Your task to perform on an android device: set an alarm Image 0: 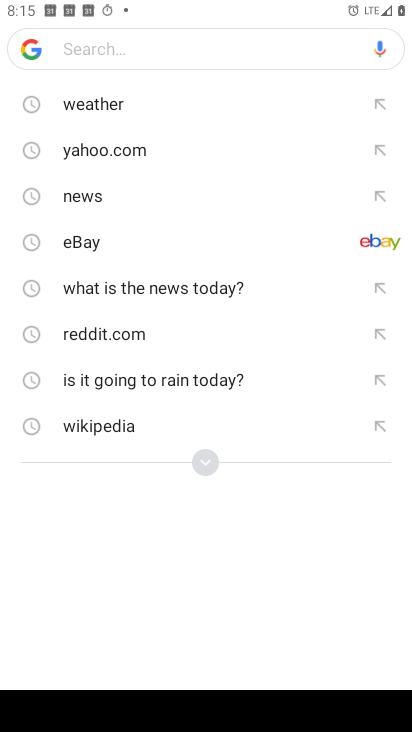
Step 0: press home button
Your task to perform on an android device: set an alarm Image 1: 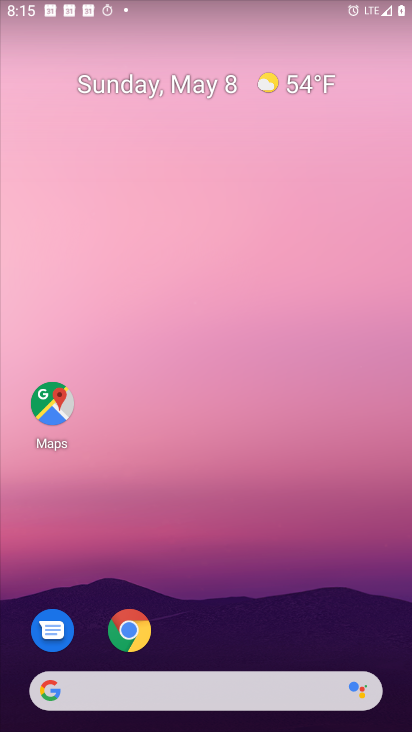
Step 1: drag from (210, 660) to (201, 38)
Your task to perform on an android device: set an alarm Image 2: 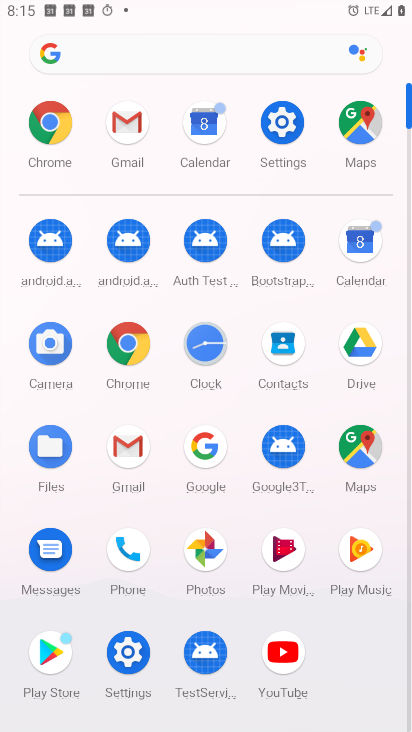
Step 2: click (208, 358)
Your task to perform on an android device: set an alarm Image 3: 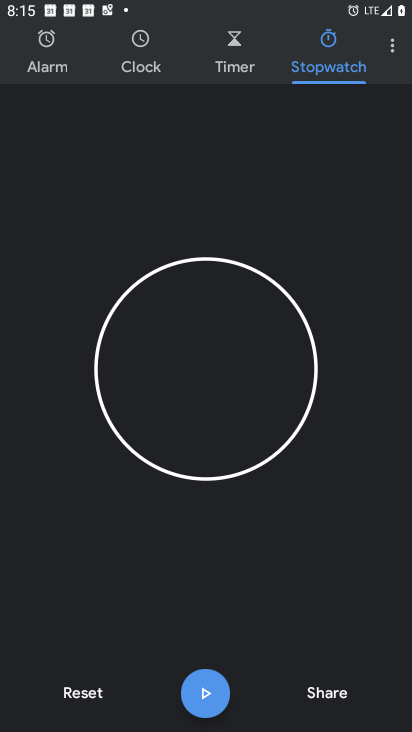
Step 3: click (38, 40)
Your task to perform on an android device: set an alarm Image 4: 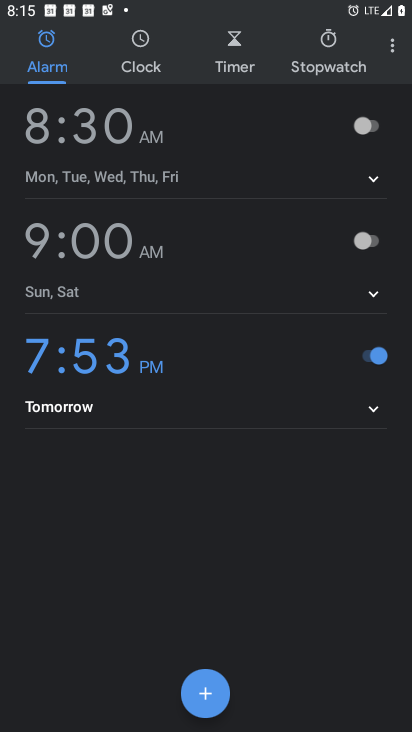
Step 4: click (210, 718)
Your task to perform on an android device: set an alarm Image 5: 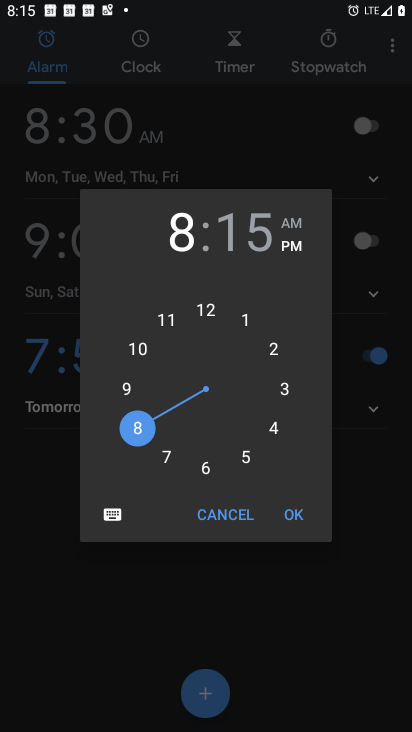
Step 5: click (294, 519)
Your task to perform on an android device: set an alarm Image 6: 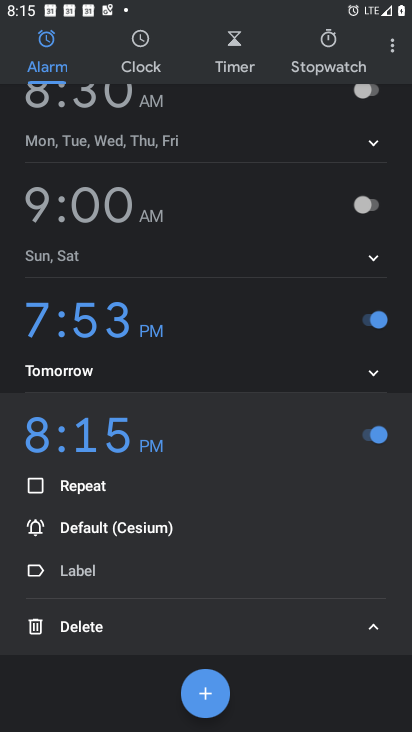
Step 6: task complete